Your task to perform on an android device: What's on my calendar tomorrow? Image 0: 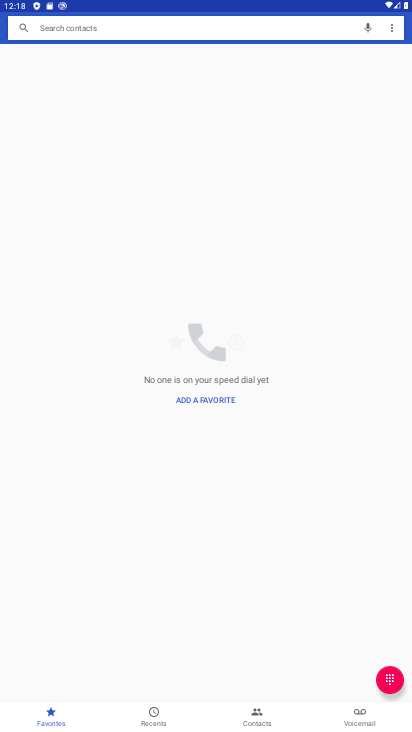
Step 0: press home button
Your task to perform on an android device: What's on my calendar tomorrow? Image 1: 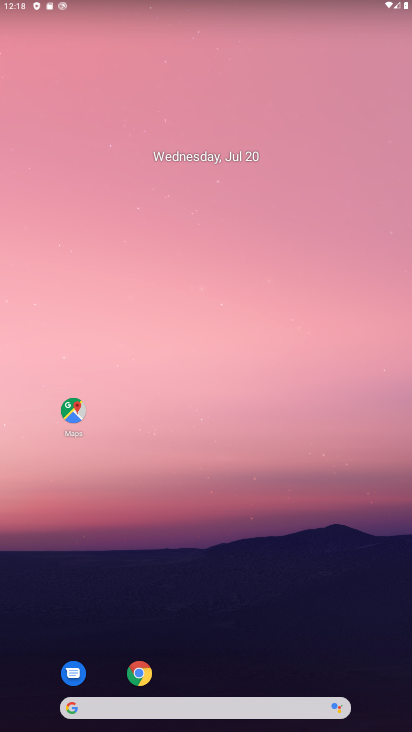
Step 1: drag from (250, 645) to (354, 7)
Your task to perform on an android device: What's on my calendar tomorrow? Image 2: 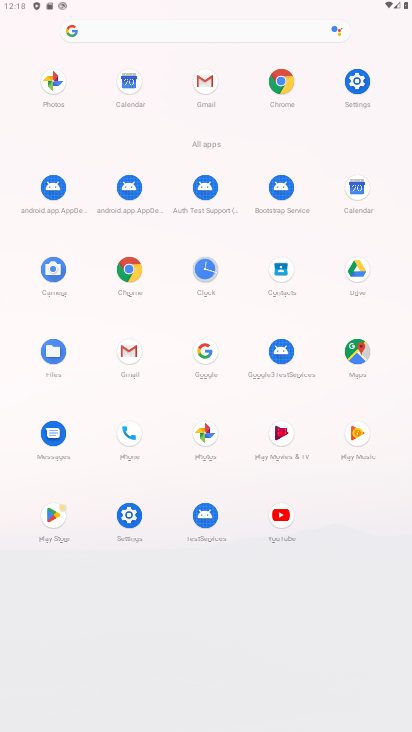
Step 2: click (358, 202)
Your task to perform on an android device: What's on my calendar tomorrow? Image 3: 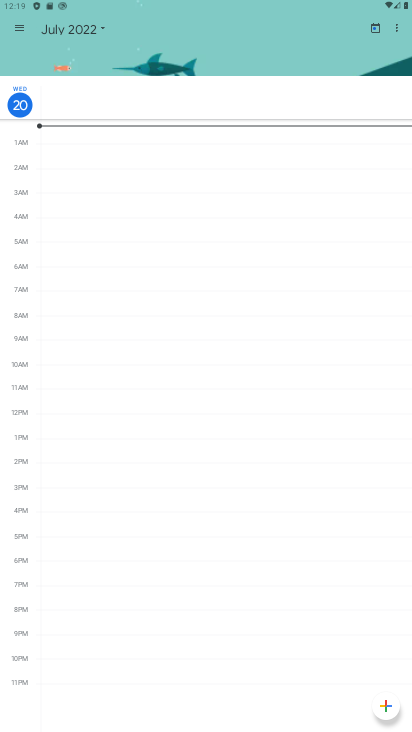
Step 3: click (14, 37)
Your task to perform on an android device: What's on my calendar tomorrow? Image 4: 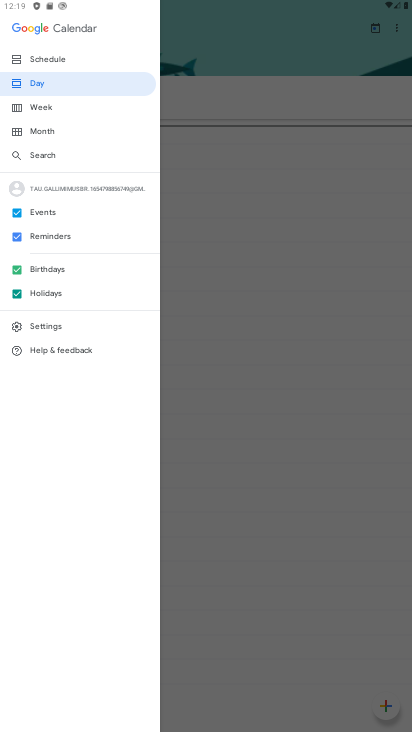
Step 4: click (356, 180)
Your task to perform on an android device: What's on my calendar tomorrow? Image 5: 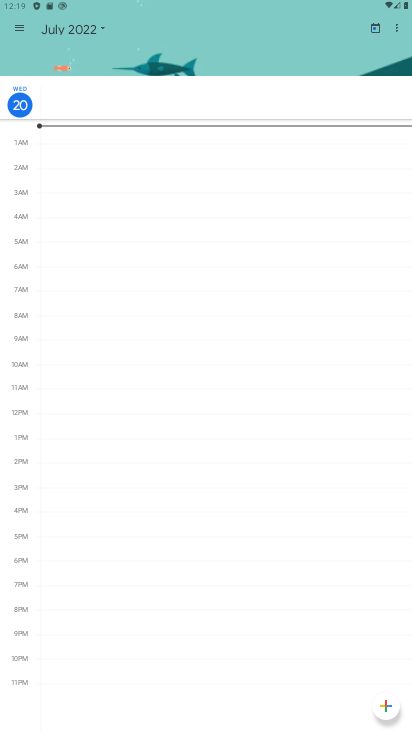
Step 5: click (88, 25)
Your task to perform on an android device: What's on my calendar tomorrow? Image 6: 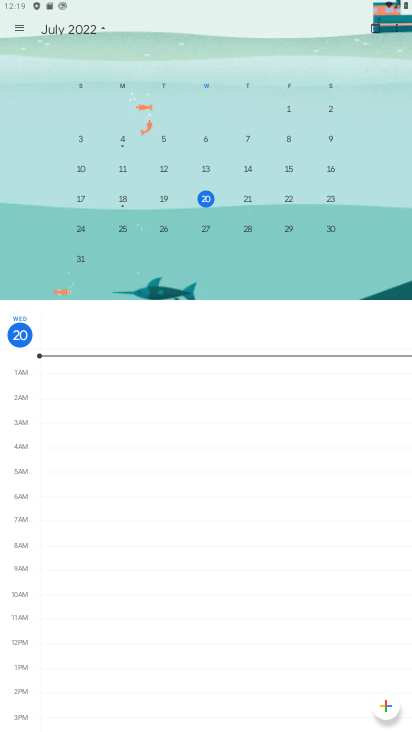
Step 6: click (253, 200)
Your task to perform on an android device: What's on my calendar tomorrow? Image 7: 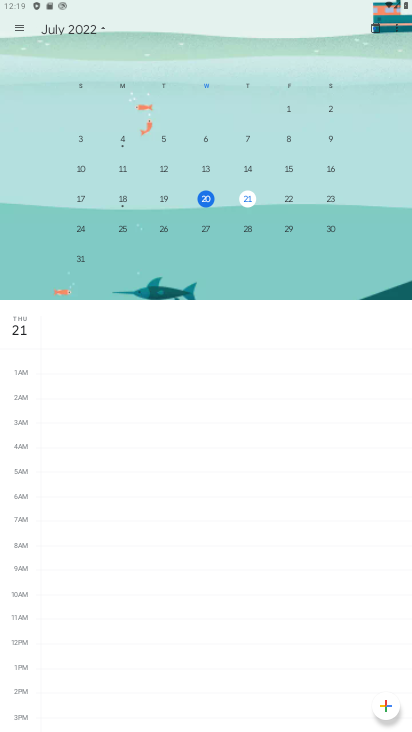
Step 7: click (247, 200)
Your task to perform on an android device: What's on my calendar tomorrow? Image 8: 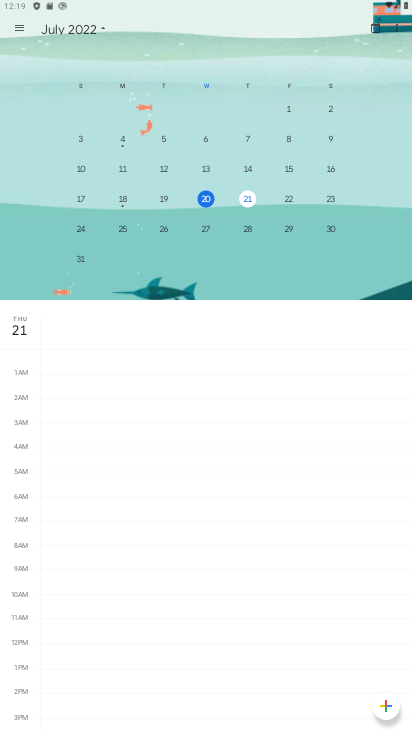
Step 8: task complete